Your task to perform on an android device: Clear the cart on target.com. Search for "logitech g910" on target.com, select the first entry, add it to the cart, then select checkout. Image 0: 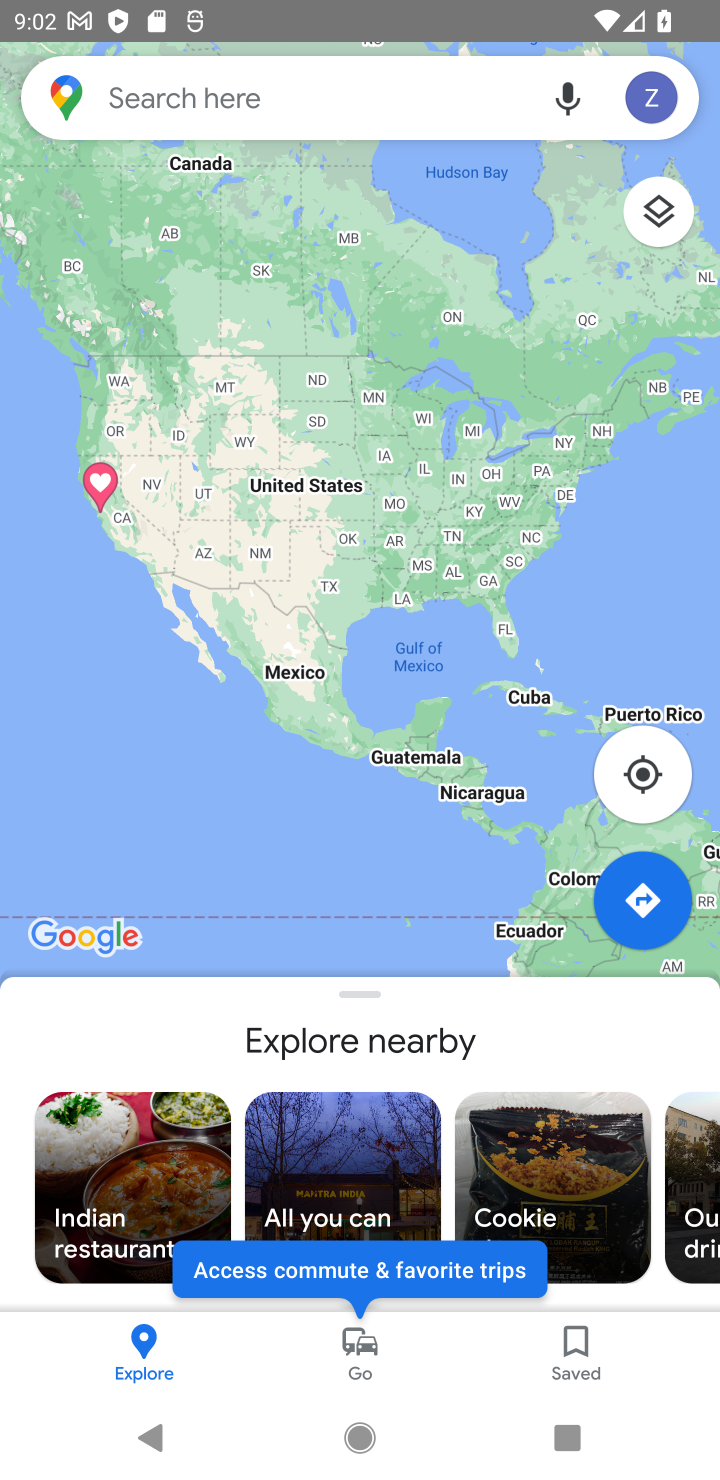
Step 0: press home button
Your task to perform on an android device: Clear the cart on target.com. Search for "logitech g910" on target.com, select the first entry, add it to the cart, then select checkout. Image 1: 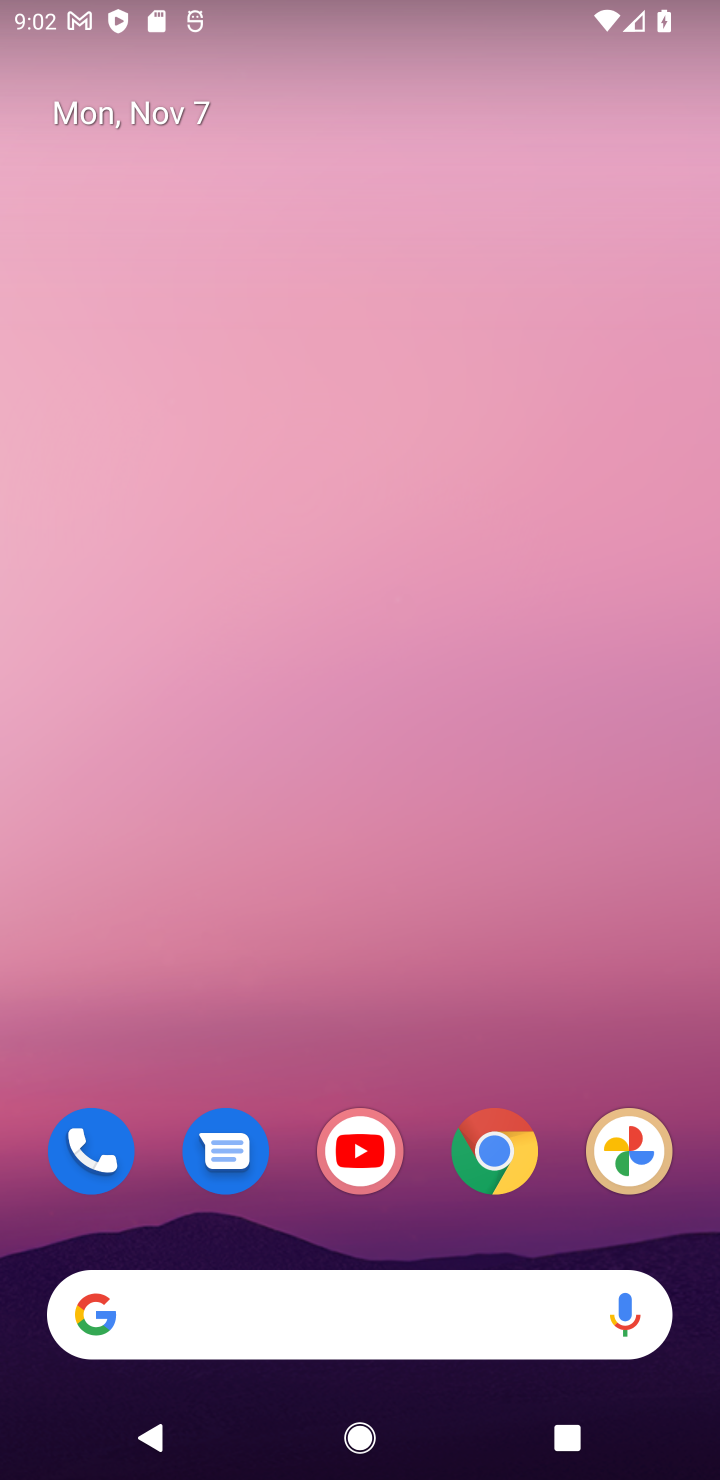
Step 1: click (497, 1154)
Your task to perform on an android device: Clear the cart on target.com. Search for "logitech g910" on target.com, select the first entry, add it to the cart, then select checkout. Image 2: 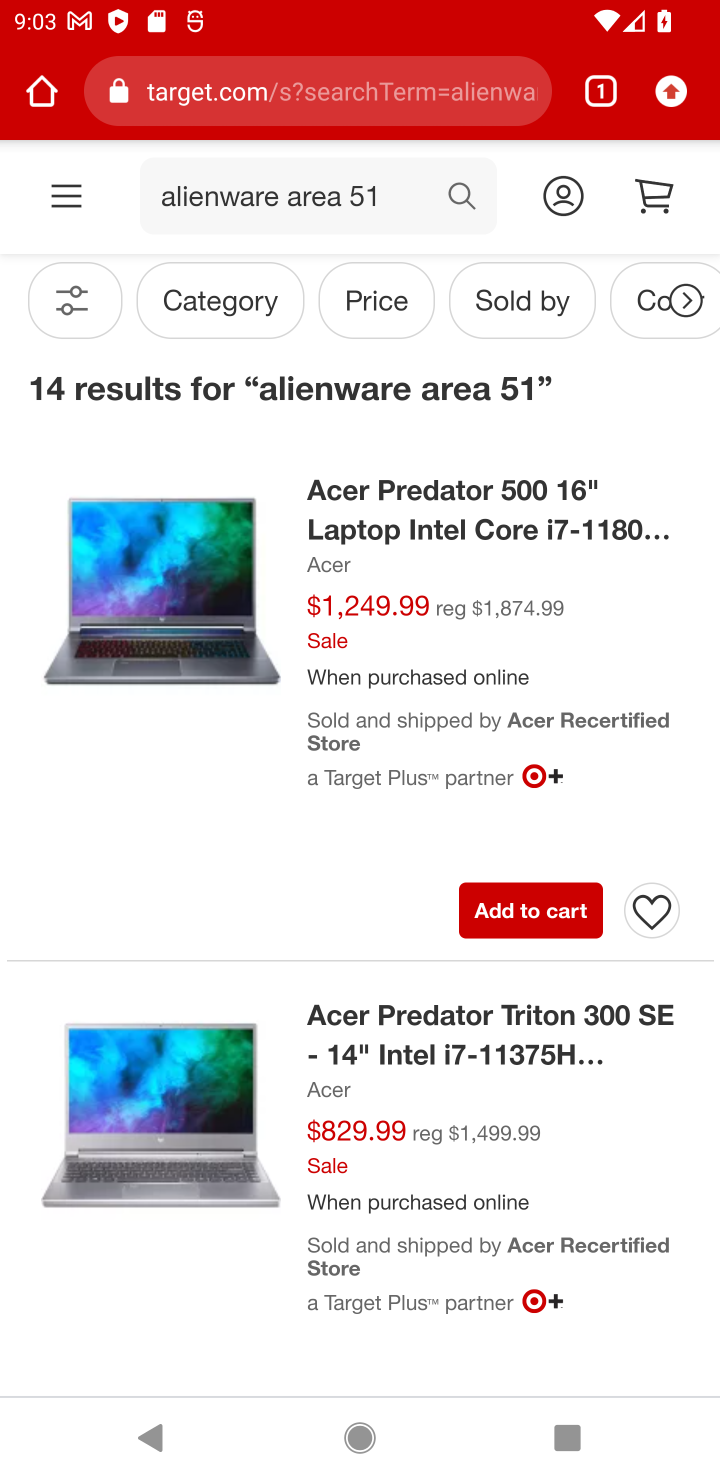
Step 2: click (452, 184)
Your task to perform on an android device: Clear the cart on target.com. Search for "logitech g910" on target.com, select the first entry, add it to the cart, then select checkout. Image 3: 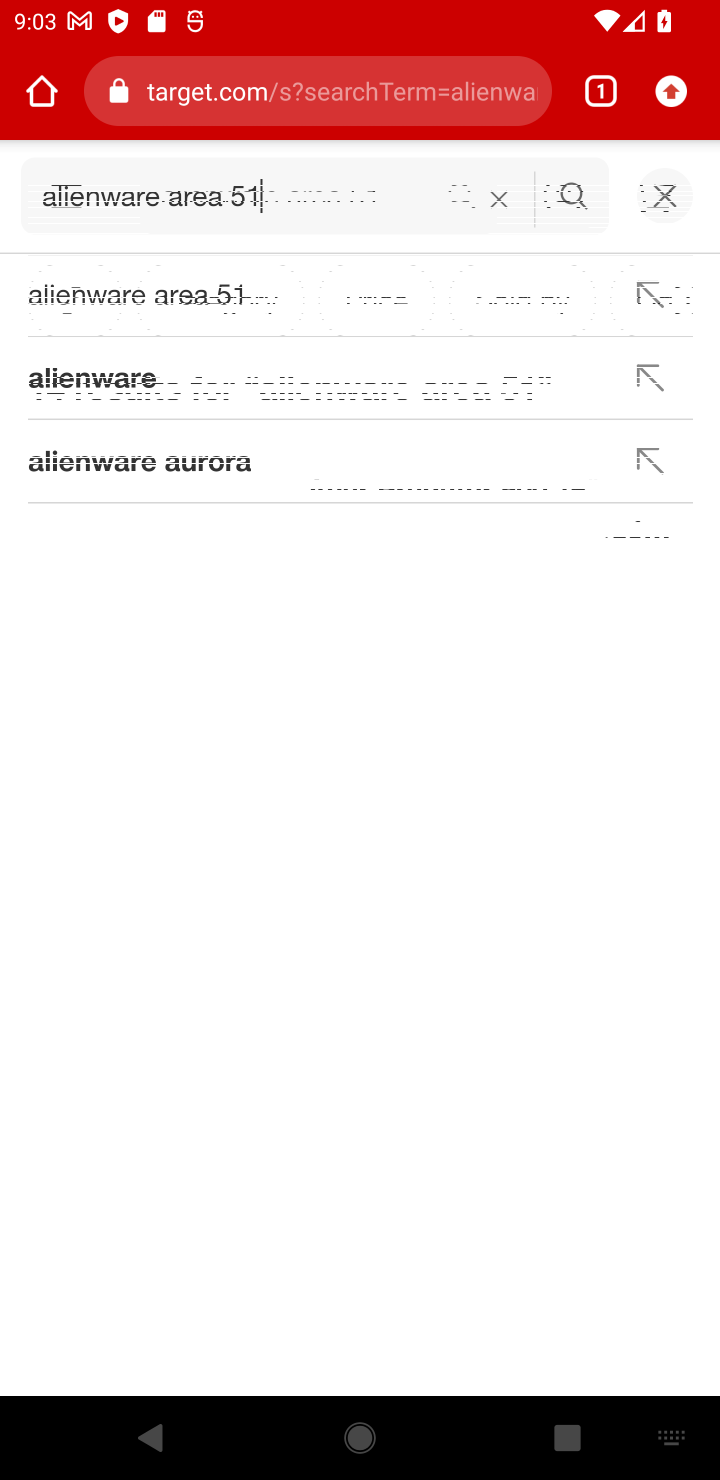
Step 3: click (500, 191)
Your task to perform on an android device: Clear the cart on target.com. Search for "logitech g910" on target.com, select the first entry, add it to the cart, then select checkout. Image 4: 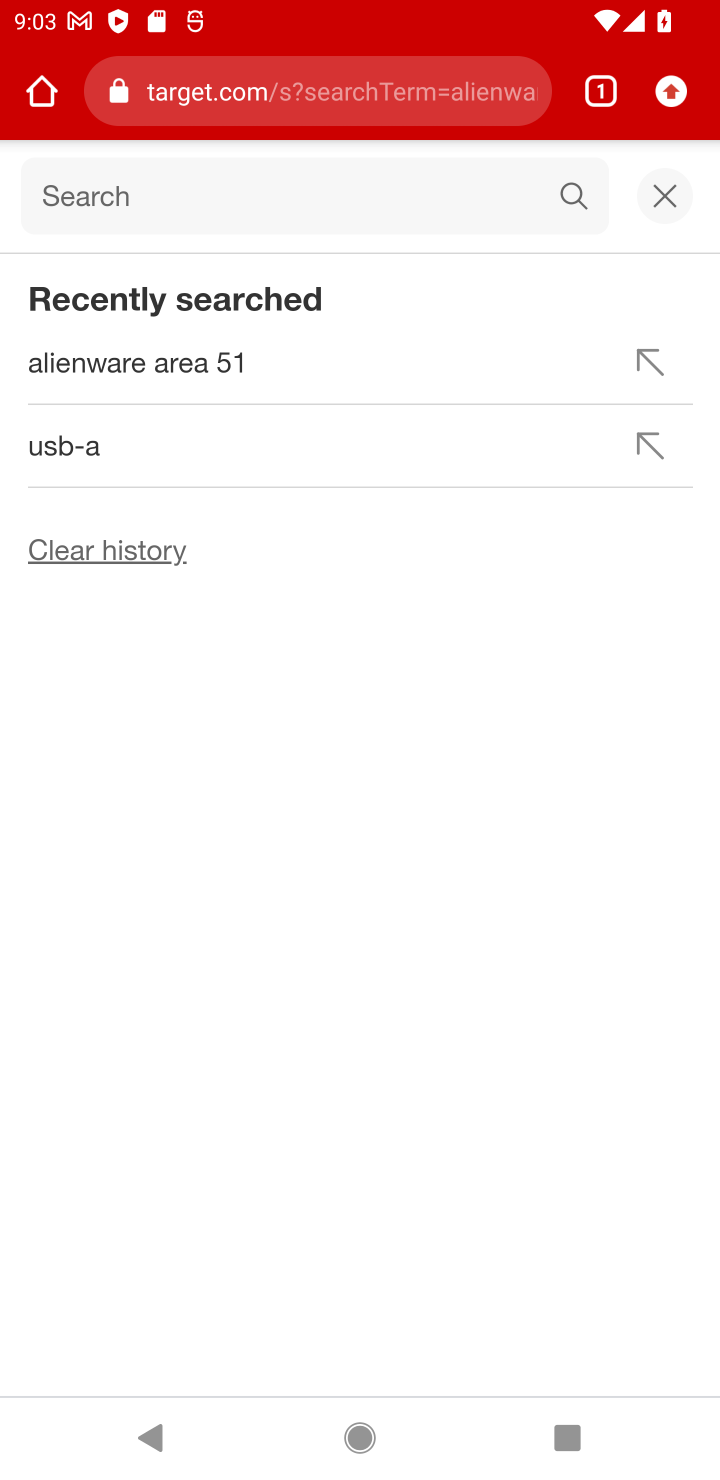
Step 4: click (125, 195)
Your task to perform on an android device: Clear the cart on target.com. Search for "logitech g910" on target.com, select the first entry, add it to the cart, then select checkout. Image 5: 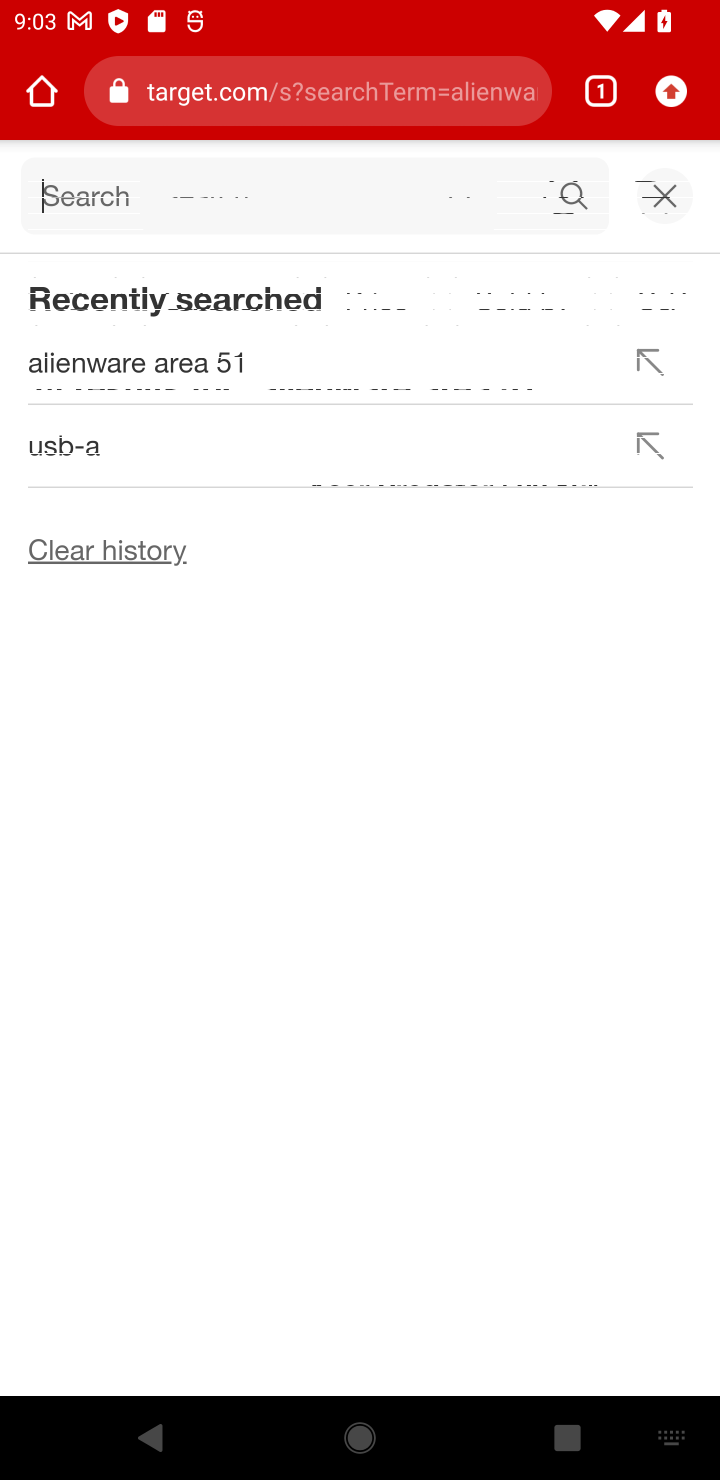
Step 5: type "logitech g910"
Your task to perform on an android device: Clear the cart on target.com. Search for "logitech g910" on target.com, select the first entry, add it to the cart, then select checkout. Image 6: 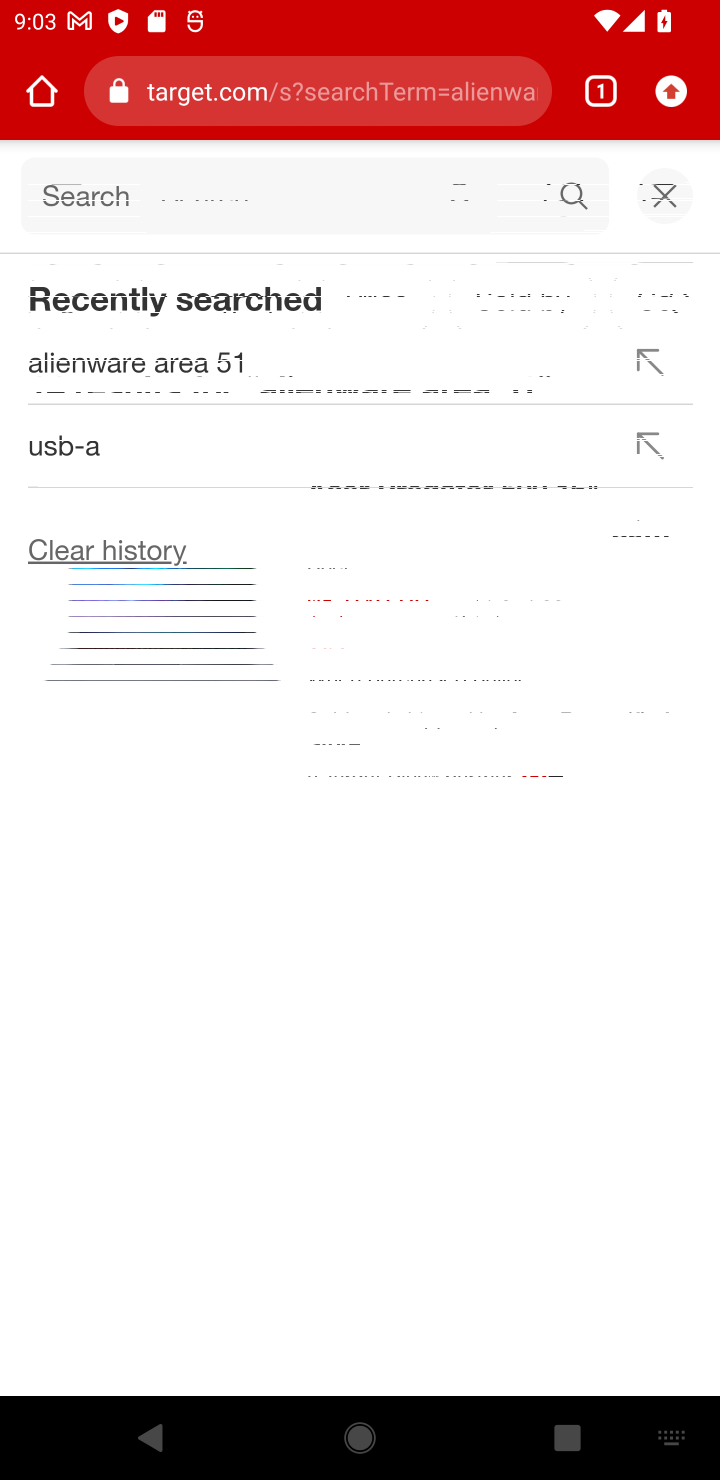
Step 6: press enter
Your task to perform on an android device: Clear the cart on target.com. Search for "logitech g910" on target.com, select the first entry, add it to the cart, then select checkout. Image 7: 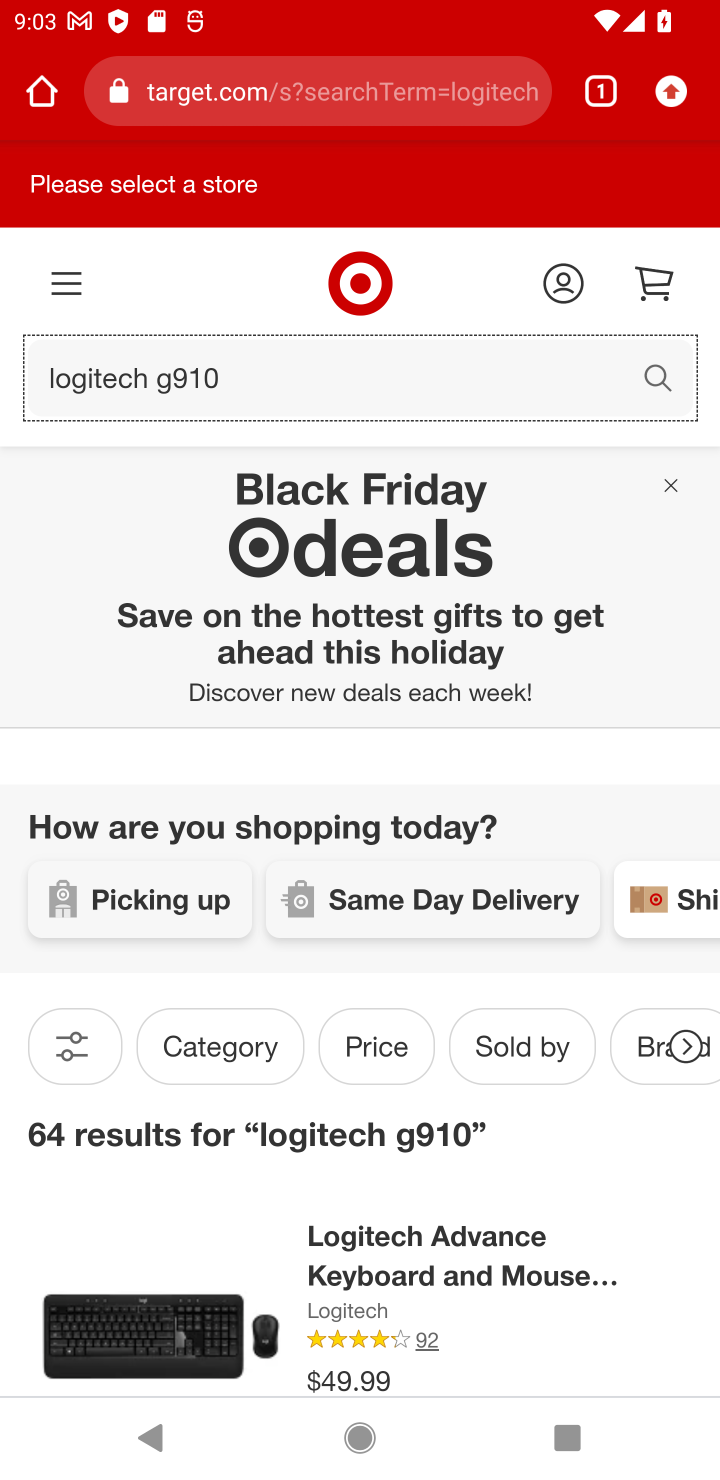
Step 7: task complete